Your task to perform on an android device: clear all cookies in the chrome app Image 0: 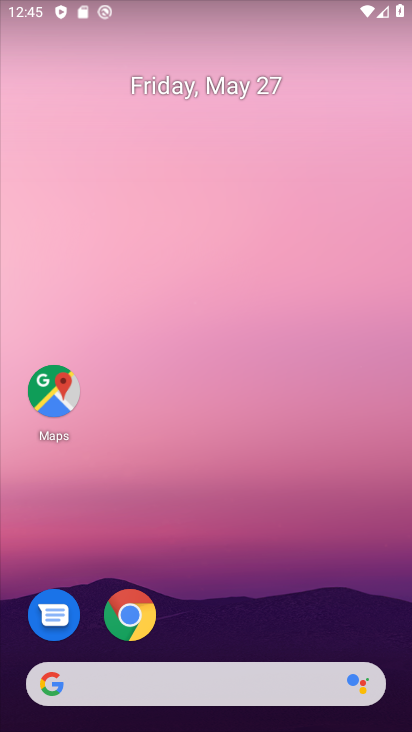
Step 0: drag from (287, 594) to (291, 74)
Your task to perform on an android device: clear all cookies in the chrome app Image 1: 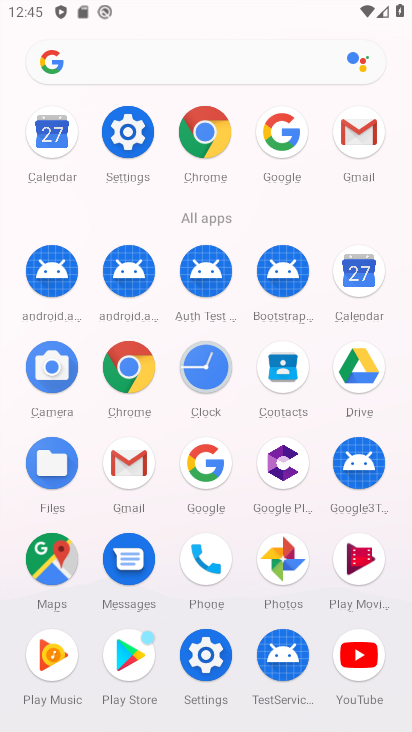
Step 1: click (142, 376)
Your task to perform on an android device: clear all cookies in the chrome app Image 2: 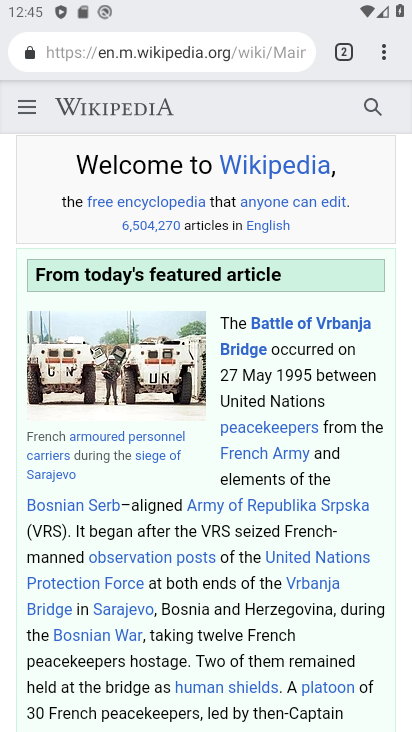
Step 2: click (388, 50)
Your task to perform on an android device: clear all cookies in the chrome app Image 3: 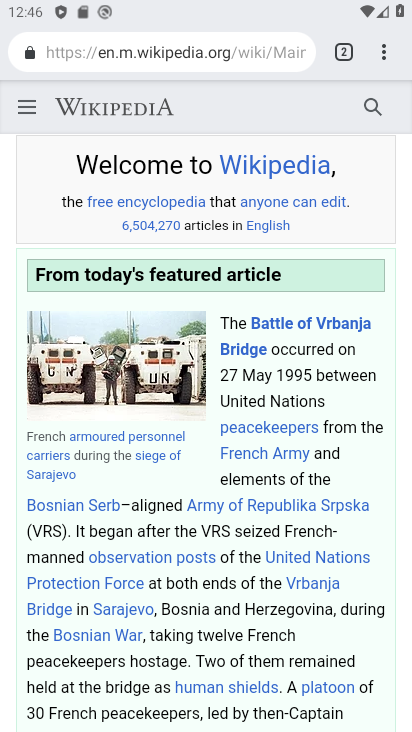
Step 3: click (385, 57)
Your task to perform on an android device: clear all cookies in the chrome app Image 4: 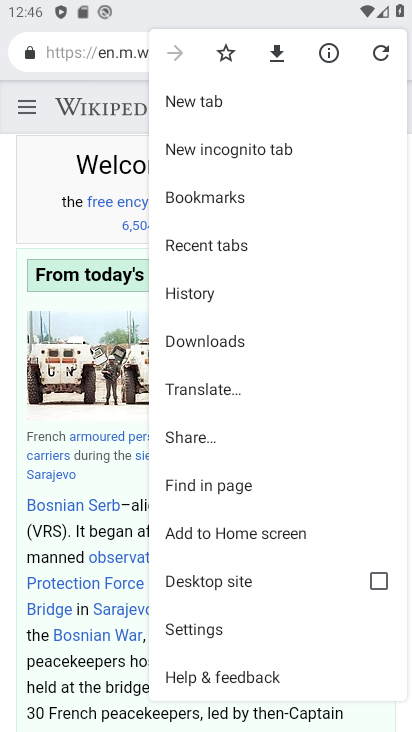
Step 4: drag from (249, 489) to (329, 204)
Your task to perform on an android device: clear all cookies in the chrome app Image 5: 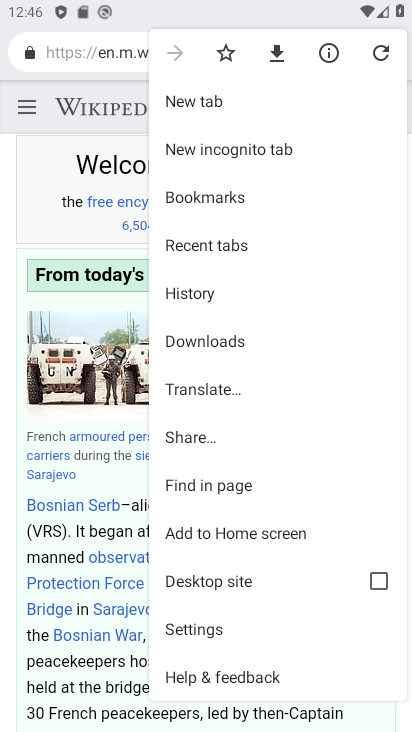
Step 5: click (234, 294)
Your task to perform on an android device: clear all cookies in the chrome app Image 6: 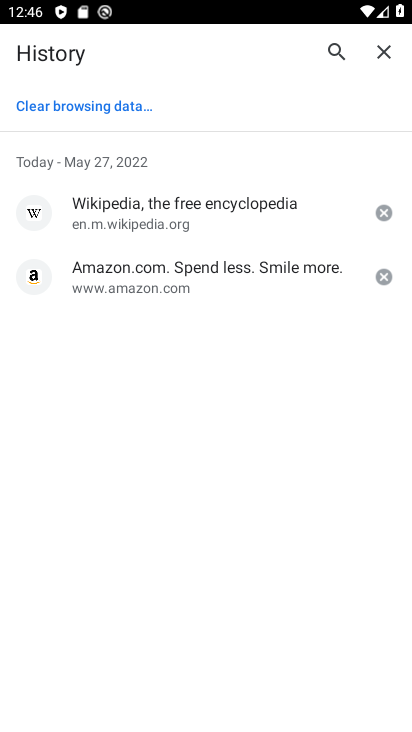
Step 6: click (119, 116)
Your task to perform on an android device: clear all cookies in the chrome app Image 7: 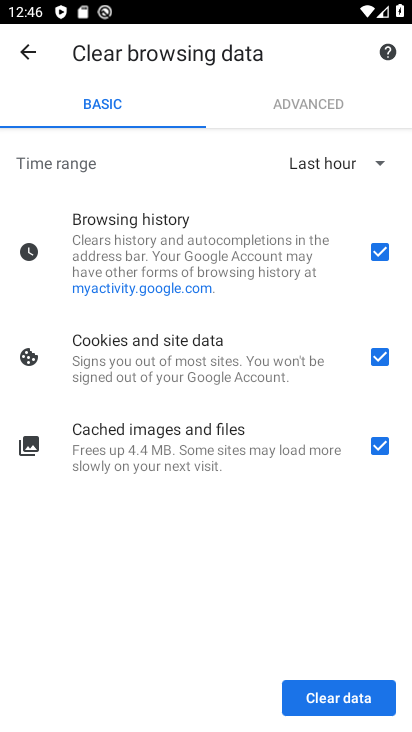
Step 7: click (312, 699)
Your task to perform on an android device: clear all cookies in the chrome app Image 8: 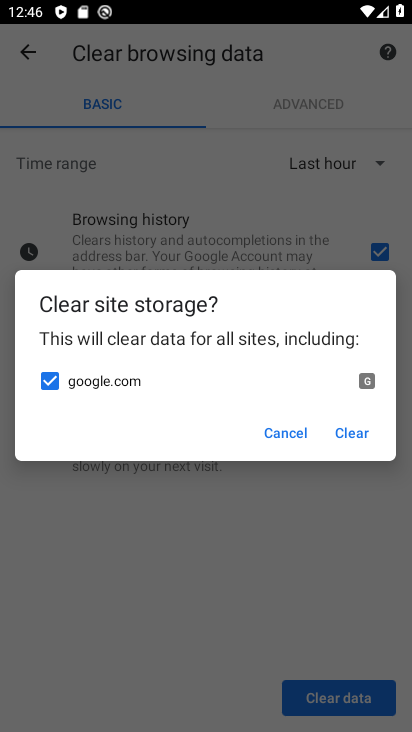
Step 8: click (354, 437)
Your task to perform on an android device: clear all cookies in the chrome app Image 9: 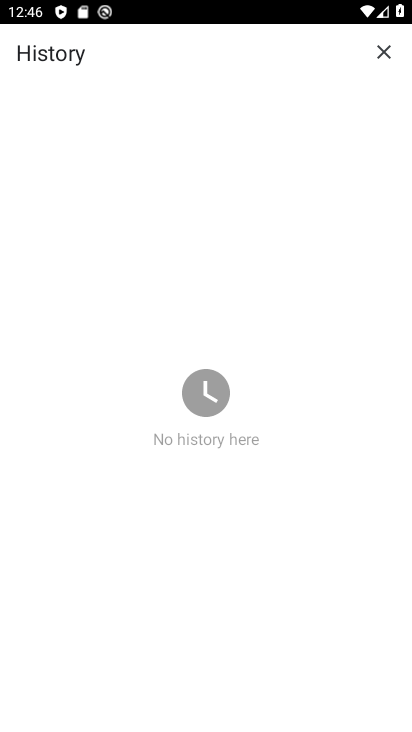
Step 9: task complete